Your task to perform on an android device: Go to Yahoo.com Image 0: 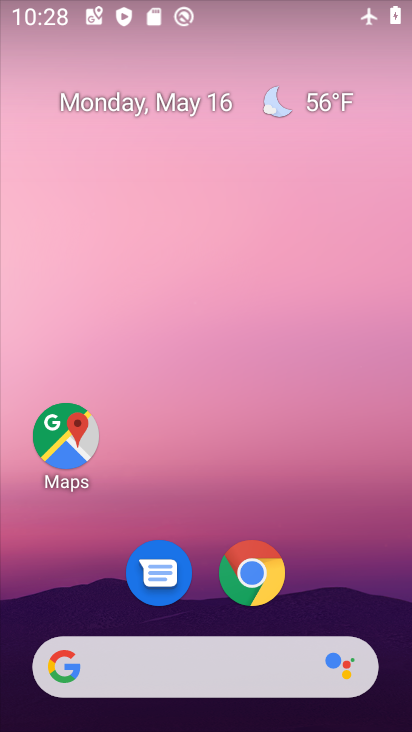
Step 0: click (214, 656)
Your task to perform on an android device: Go to Yahoo.com Image 1: 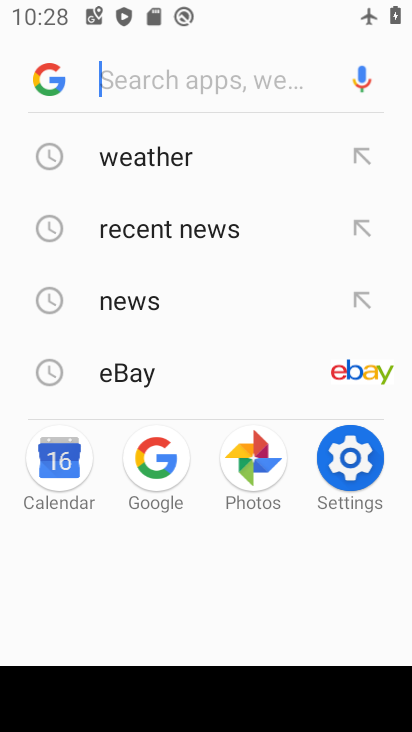
Step 1: type "yahoo.com"
Your task to perform on an android device: Go to Yahoo.com Image 2: 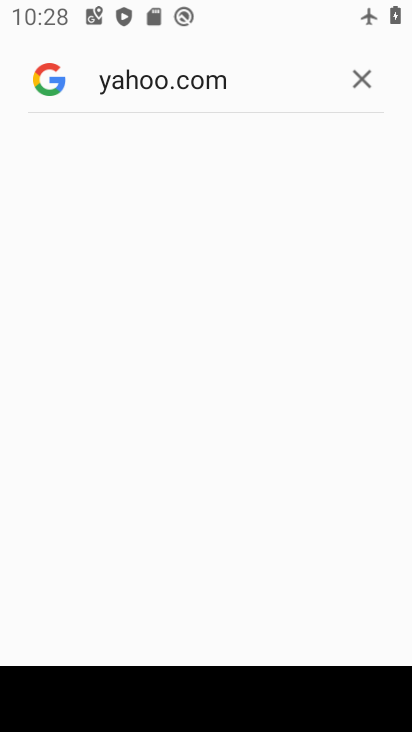
Step 2: task complete